Your task to perform on an android device: turn off data saver in the chrome app Image 0: 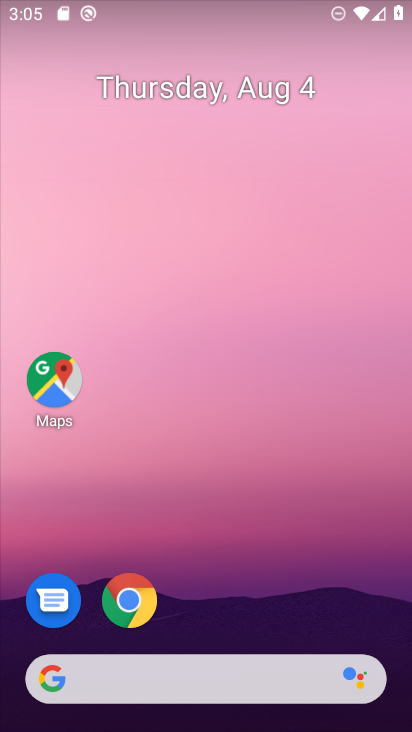
Step 0: click (135, 601)
Your task to perform on an android device: turn off data saver in the chrome app Image 1: 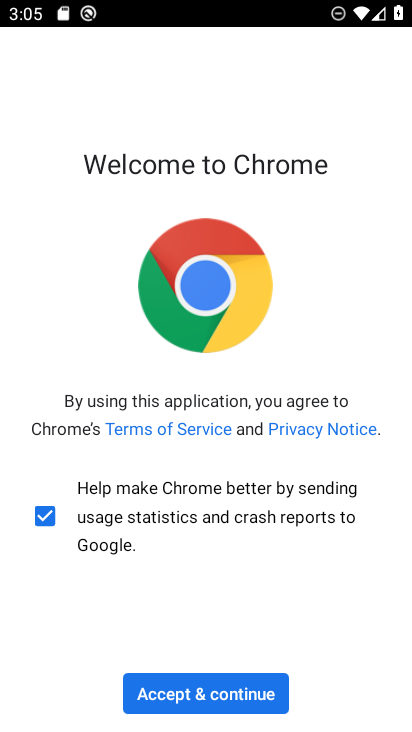
Step 1: click (202, 698)
Your task to perform on an android device: turn off data saver in the chrome app Image 2: 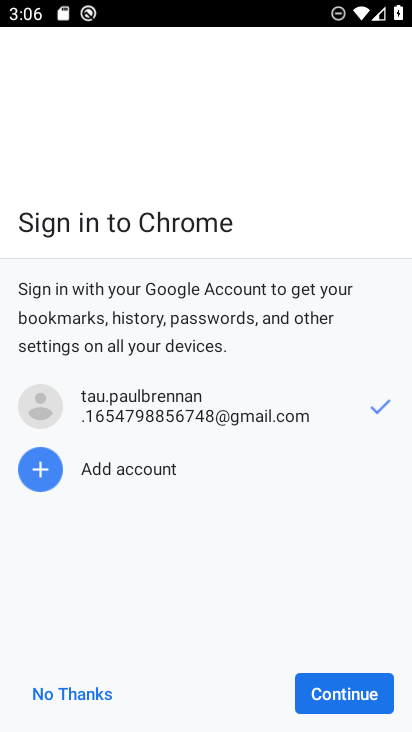
Step 2: click (345, 701)
Your task to perform on an android device: turn off data saver in the chrome app Image 3: 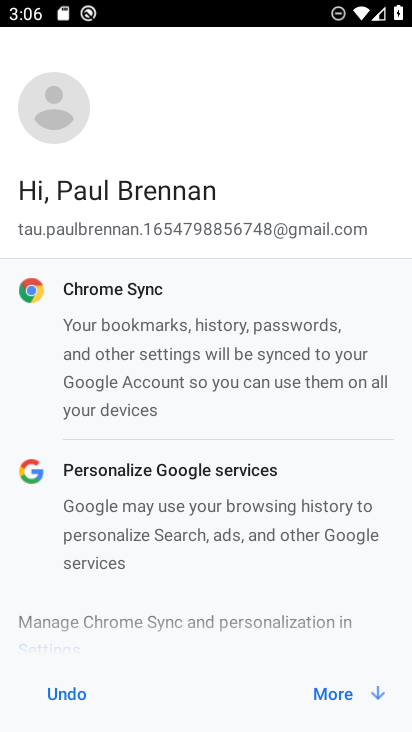
Step 3: click (344, 694)
Your task to perform on an android device: turn off data saver in the chrome app Image 4: 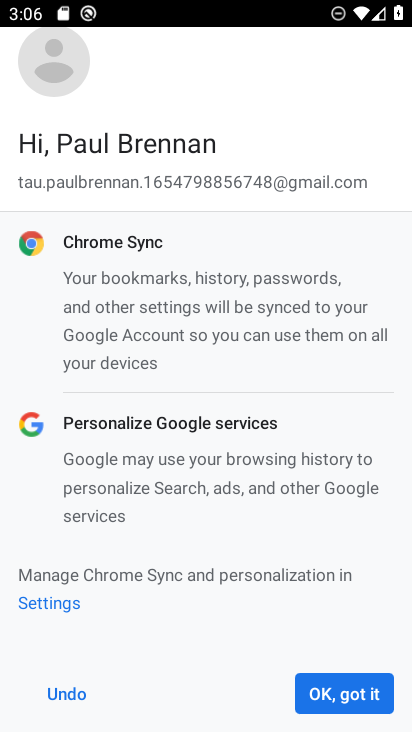
Step 4: click (350, 694)
Your task to perform on an android device: turn off data saver in the chrome app Image 5: 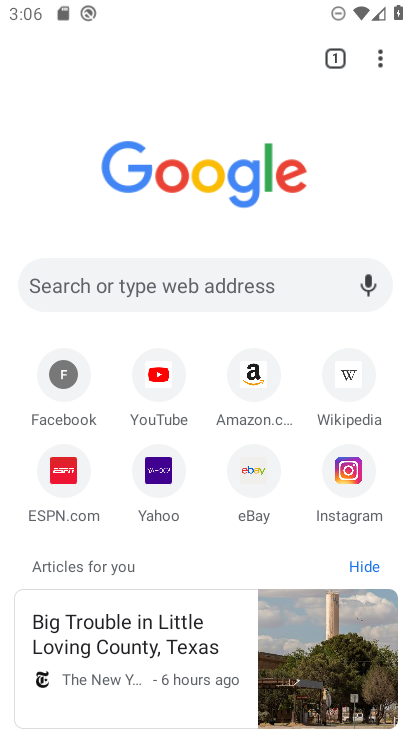
Step 5: drag from (383, 63) to (214, 488)
Your task to perform on an android device: turn off data saver in the chrome app Image 6: 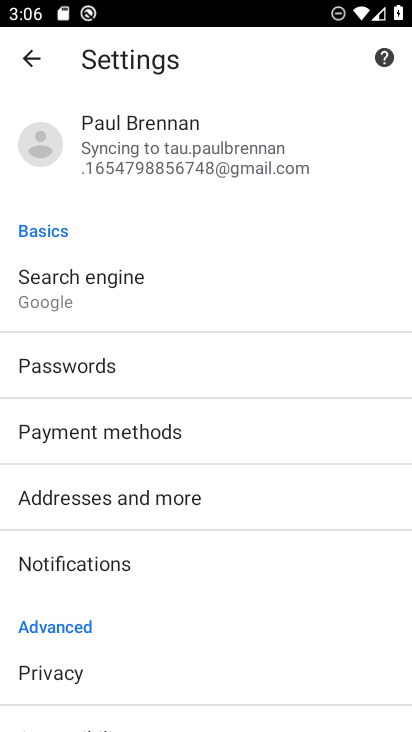
Step 6: drag from (167, 623) to (260, 260)
Your task to perform on an android device: turn off data saver in the chrome app Image 7: 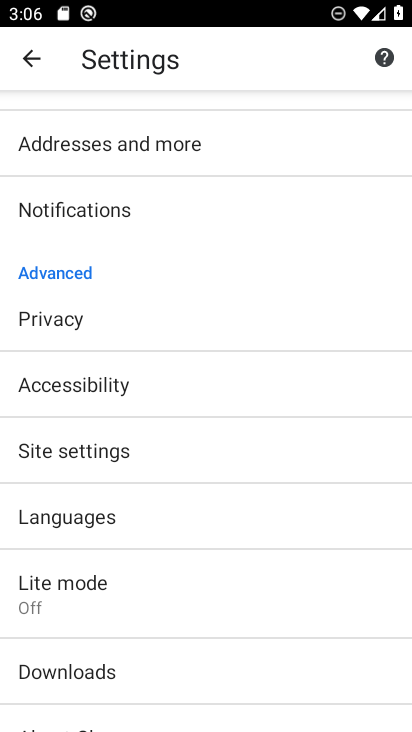
Step 7: click (107, 582)
Your task to perform on an android device: turn off data saver in the chrome app Image 8: 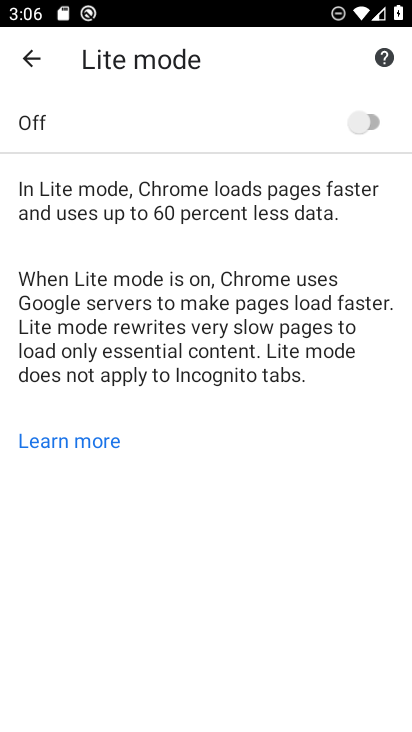
Step 8: task complete